Your task to perform on an android device: add a contact Image 0: 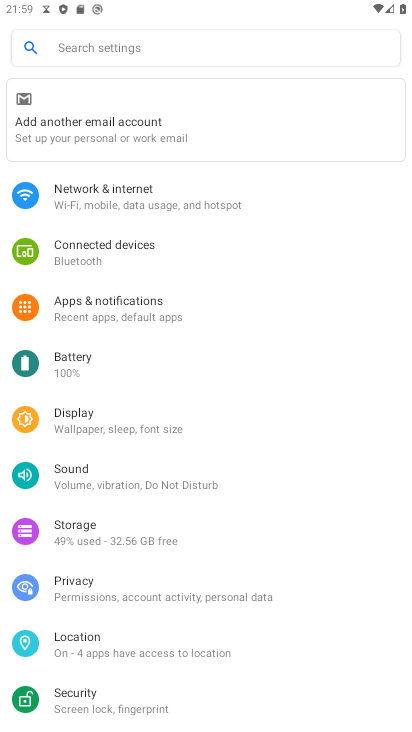
Step 0: press home button
Your task to perform on an android device: add a contact Image 1: 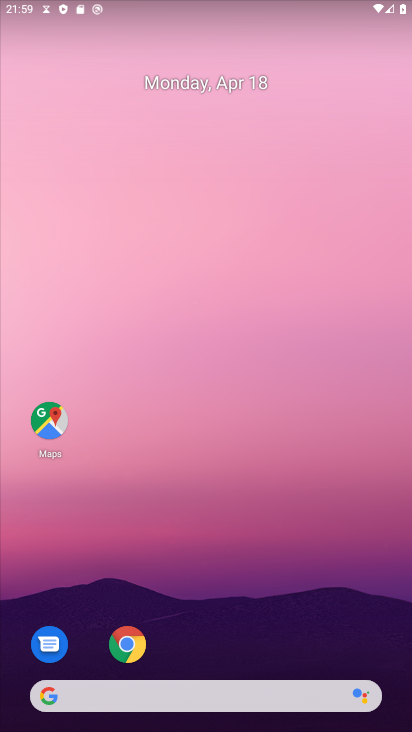
Step 1: drag from (201, 643) to (347, 16)
Your task to perform on an android device: add a contact Image 2: 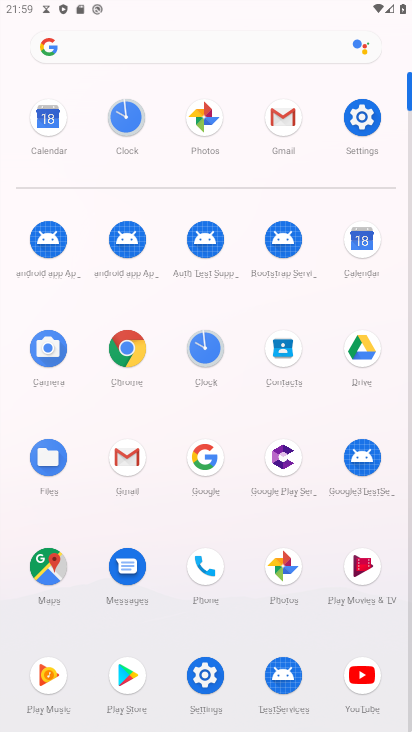
Step 2: click (283, 367)
Your task to perform on an android device: add a contact Image 3: 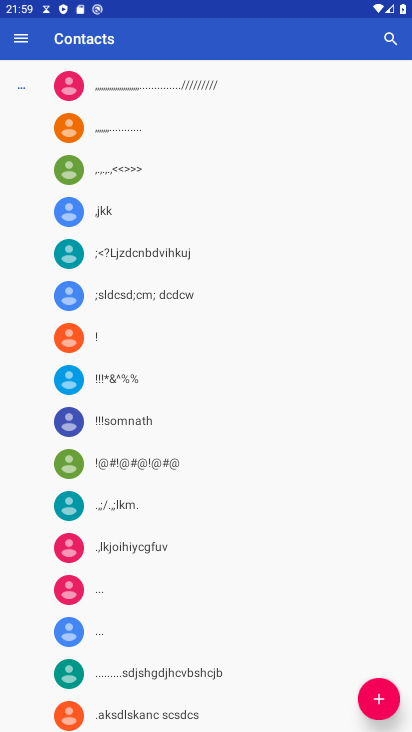
Step 3: click (383, 707)
Your task to perform on an android device: add a contact Image 4: 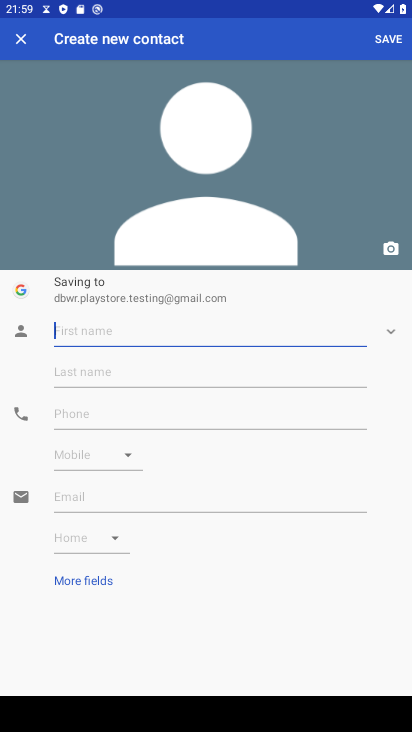
Step 4: type "salve"
Your task to perform on an android device: add a contact Image 5: 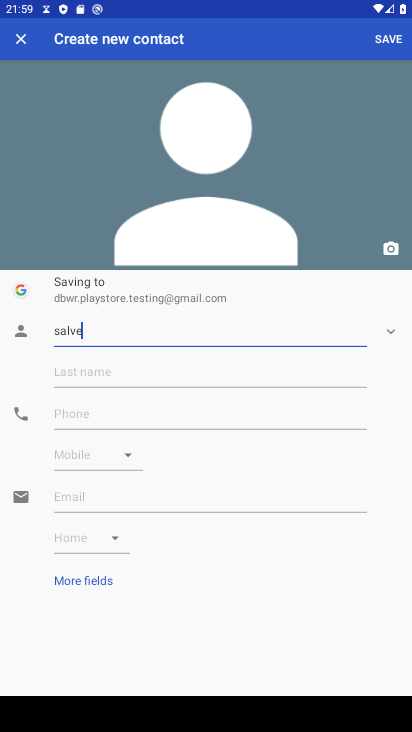
Step 5: click (382, 34)
Your task to perform on an android device: add a contact Image 6: 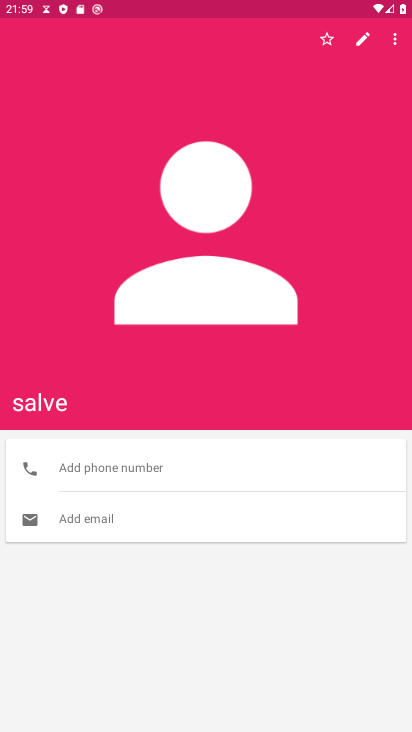
Step 6: task complete